Your task to perform on an android device: open a bookmark in the chrome app Image 0: 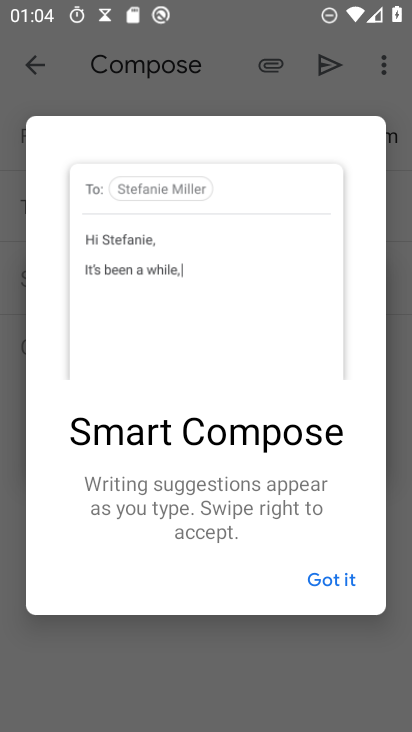
Step 0: press home button
Your task to perform on an android device: open a bookmark in the chrome app Image 1: 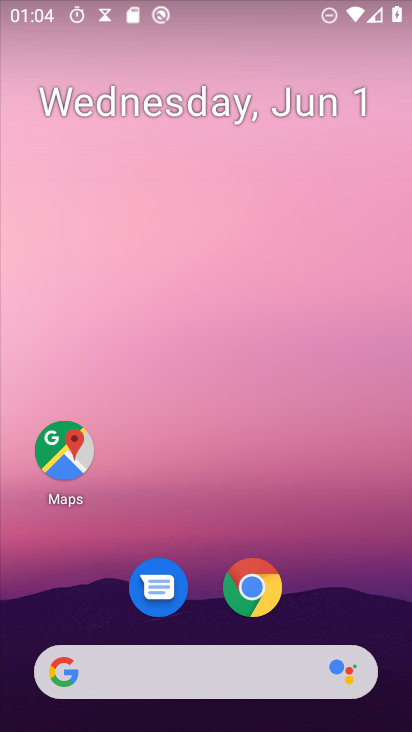
Step 1: click (258, 581)
Your task to perform on an android device: open a bookmark in the chrome app Image 2: 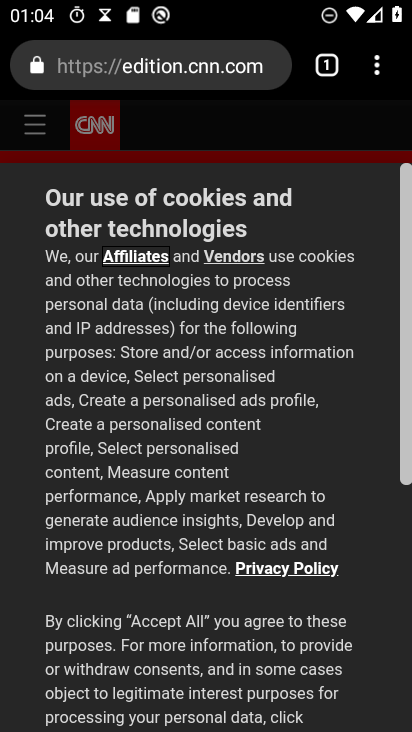
Step 2: click (371, 64)
Your task to perform on an android device: open a bookmark in the chrome app Image 3: 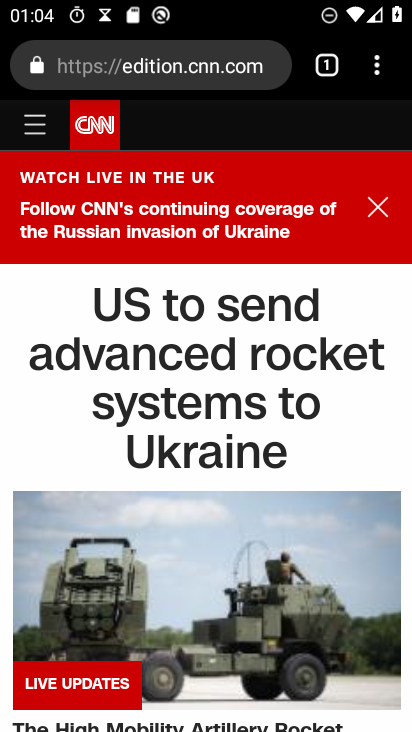
Step 3: click (384, 83)
Your task to perform on an android device: open a bookmark in the chrome app Image 4: 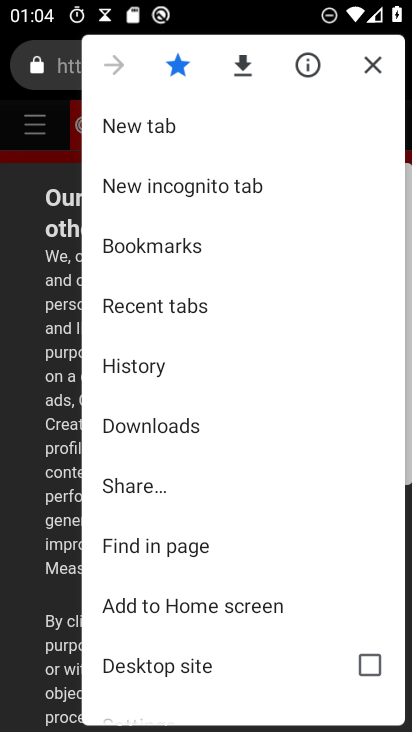
Step 4: click (182, 250)
Your task to perform on an android device: open a bookmark in the chrome app Image 5: 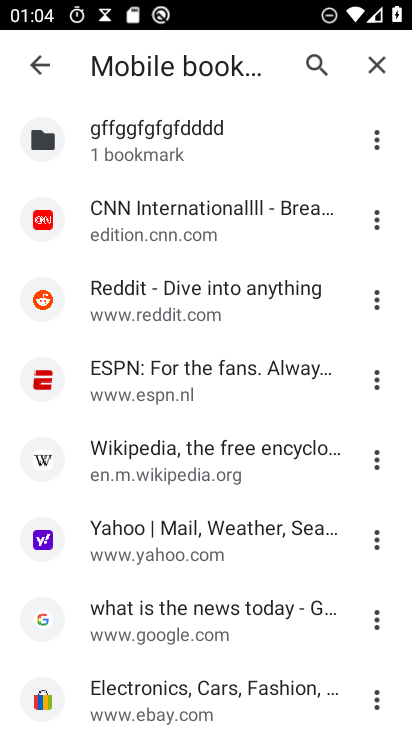
Step 5: click (154, 236)
Your task to perform on an android device: open a bookmark in the chrome app Image 6: 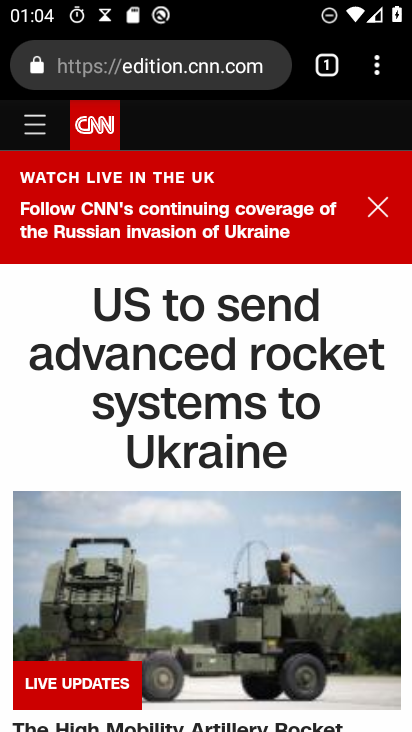
Step 6: task complete